Your task to perform on an android device: turn on notifications settings in the gmail app Image 0: 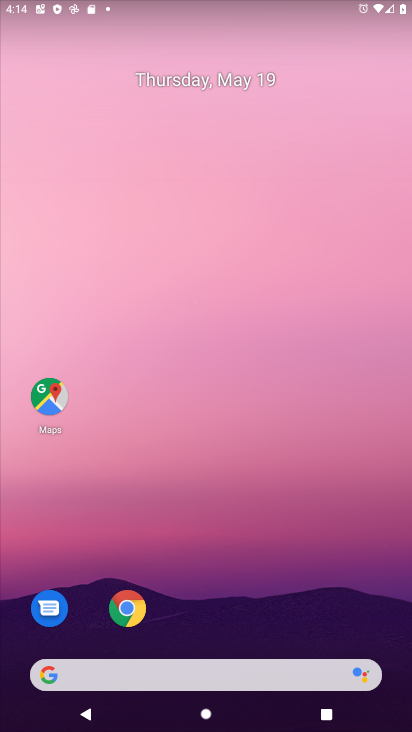
Step 0: click (136, 599)
Your task to perform on an android device: turn on notifications settings in the gmail app Image 1: 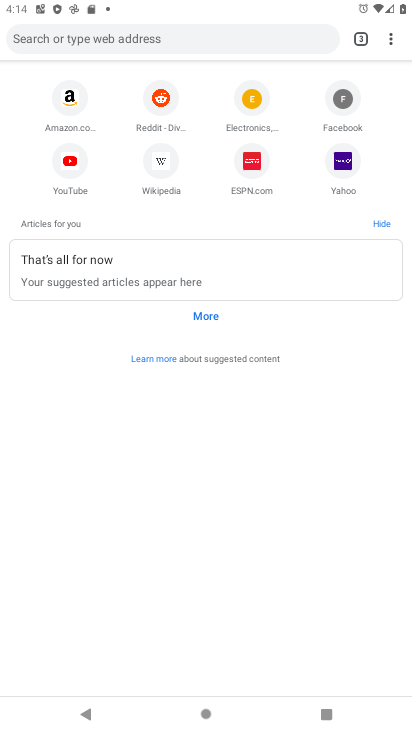
Step 1: click (396, 38)
Your task to perform on an android device: turn on notifications settings in the gmail app Image 2: 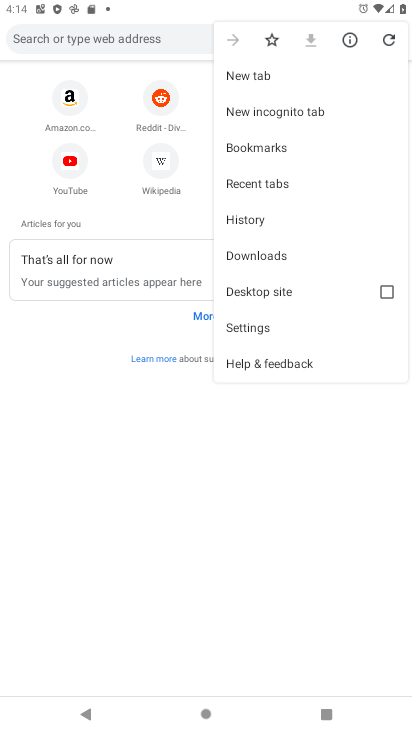
Step 2: click (242, 320)
Your task to perform on an android device: turn on notifications settings in the gmail app Image 3: 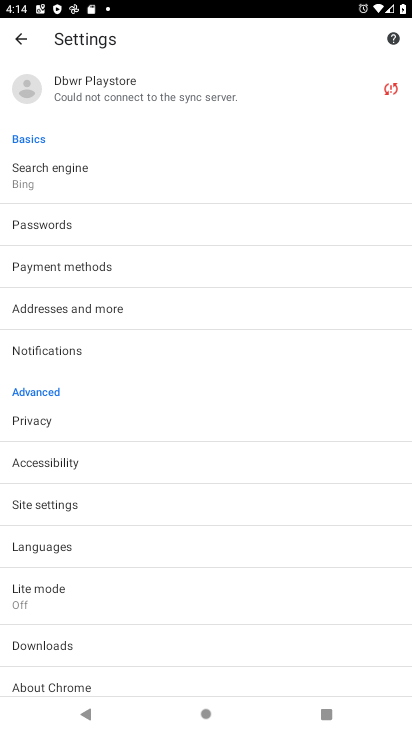
Step 3: click (181, 107)
Your task to perform on an android device: turn on notifications settings in the gmail app Image 4: 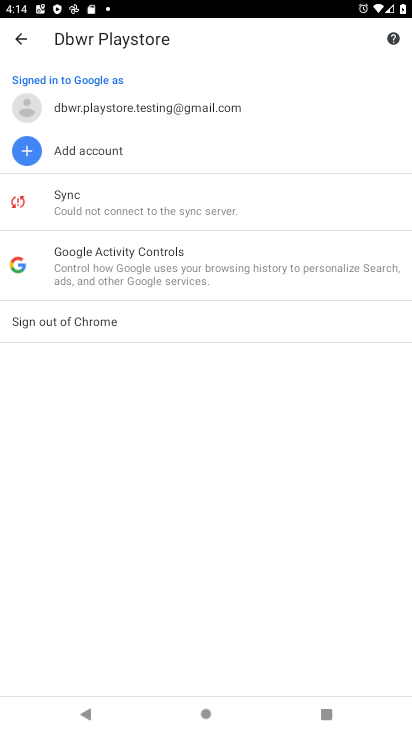
Step 4: task complete